Your task to perform on an android device: turn off improve location accuracy Image 0: 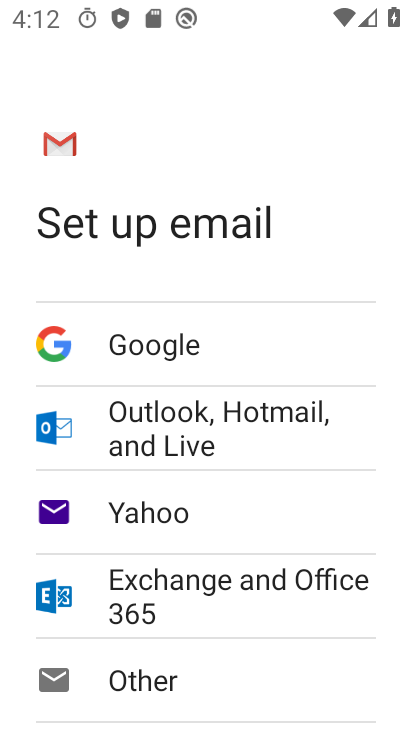
Step 0: press home button
Your task to perform on an android device: turn off improve location accuracy Image 1: 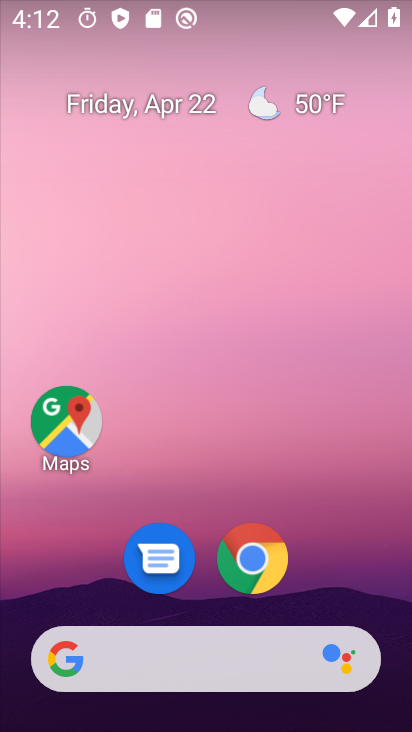
Step 1: drag from (299, 542) to (205, 214)
Your task to perform on an android device: turn off improve location accuracy Image 2: 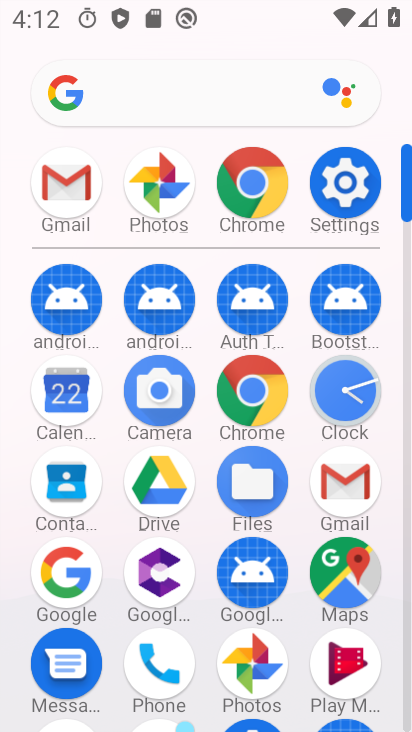
Step 2: click (347, 194)
Your task to perform on an android device: turn off improve location accuracy Image 3: 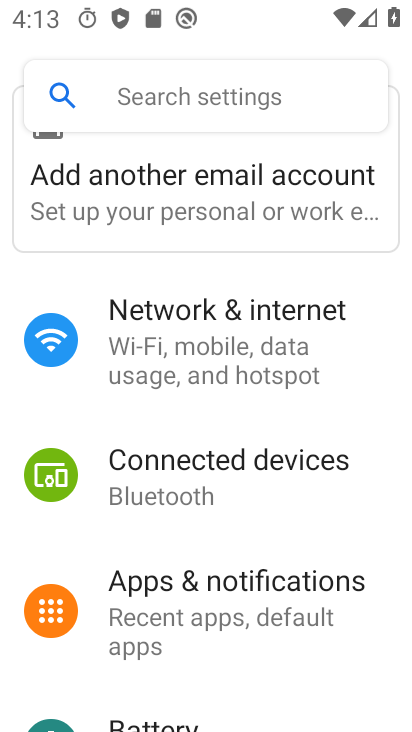
Step 3: drag from (297, 642) to (265, 241)
Your task to perform on an android device: turn off improve location accuracy Image 4: 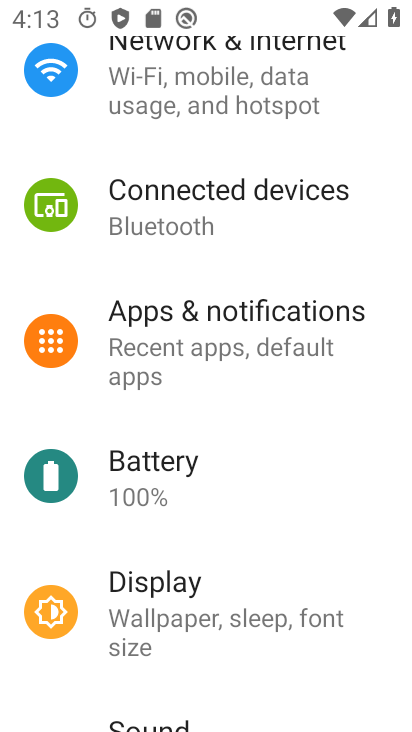
Step 4: drag from (268, 623) to (253, 413)
Your task to perform on an android device: turn off improve location accuracy Image 5: 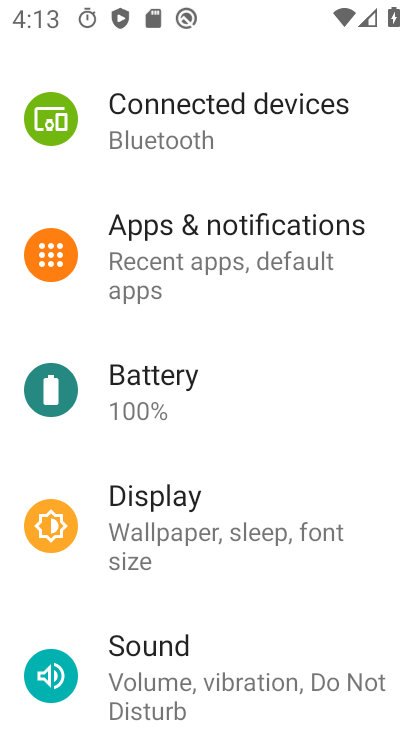
Step 5: drag from (250, 385) to (256, 617)
Your task to perform on an android device: turn off improve location accuracy Image 6: 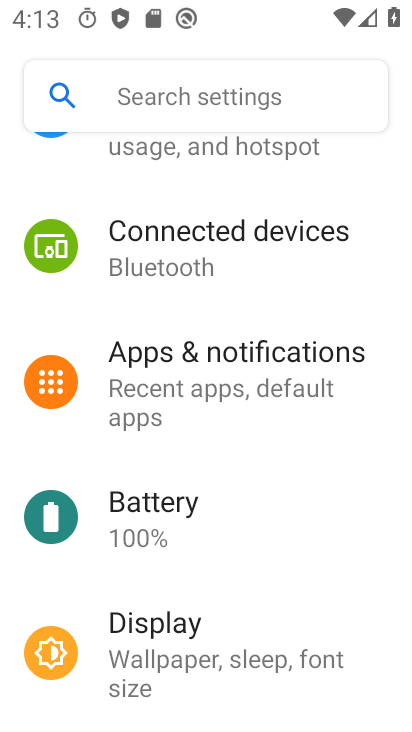
Step 6: drag from (258, 644) to (244, 350)
Your task to perform on an android device: turn off improve location accuracy Image 7: 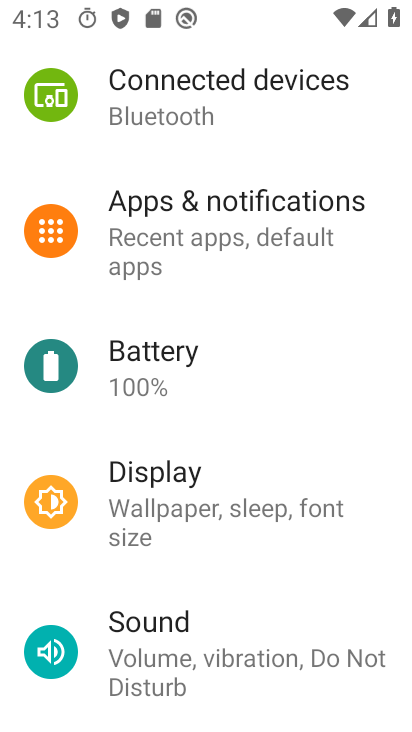
Step 7: drag from (250, 600) to (280, 279)
Your task to perform on an android device: turn off improve location accuracy Image 8: 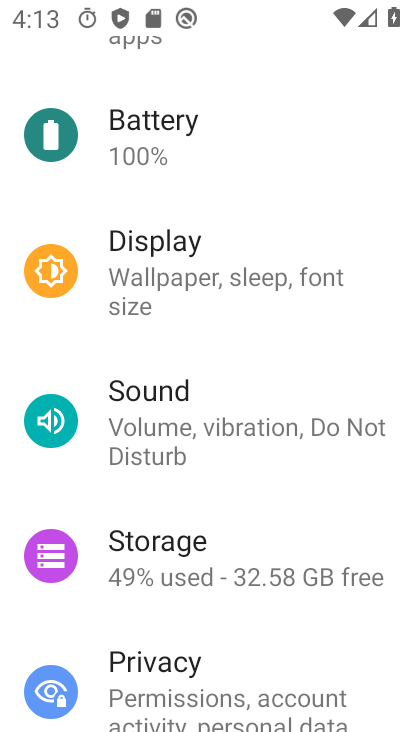
Step 8: drag from (228, 628) to (286, 330)
Your task to perform on an android device: turn off improve location accuracy Image 9: 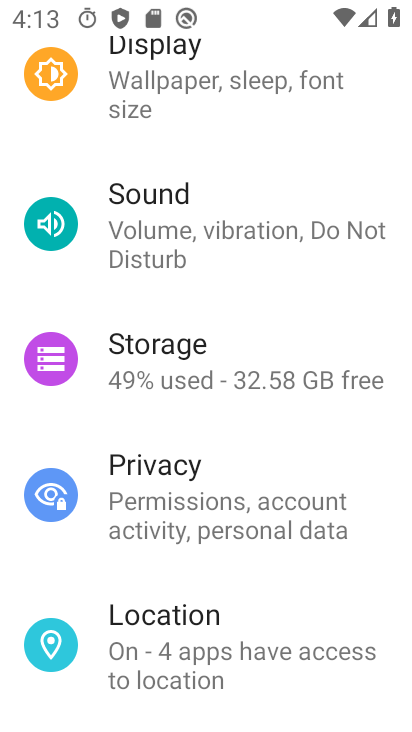
Step 9: click (185, 639)
Your task to perform on an android device: turn off improve location accuracy Image 10: 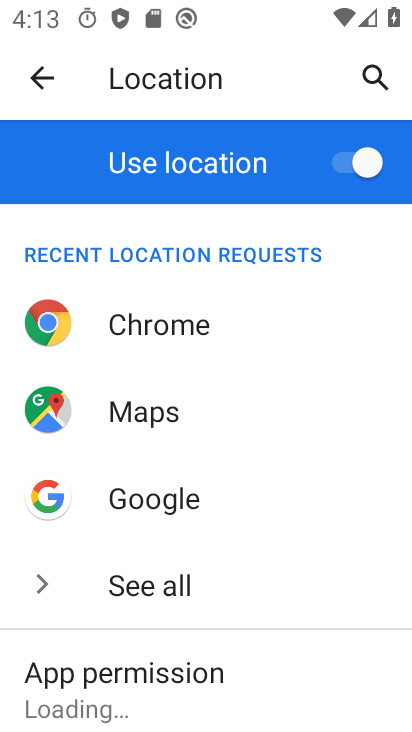
Step 10: drag from (252, 601) to (215, 352)
Your task to perform on an android device: turn off improve location accuracy Image 11: 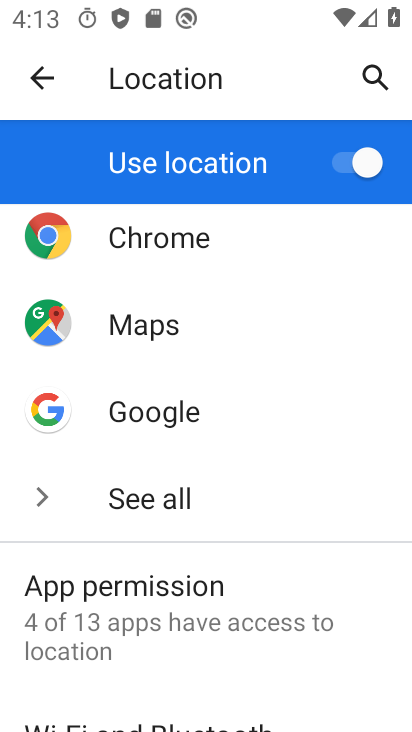
Step 11: drag from (222, 651) to (239, 317)
Your task to perform on an android device: turn off improve location accuracy Image 12: 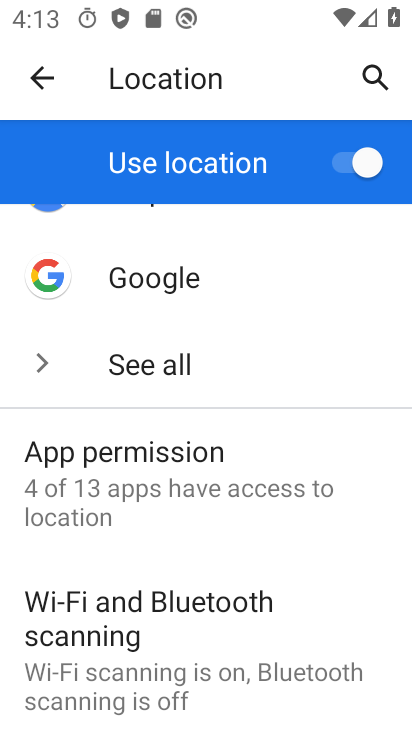
Step 12: drag from (252, 586) to (263, 322)
Your task to perform on an android device: turn off improve location accuracy Image 13: 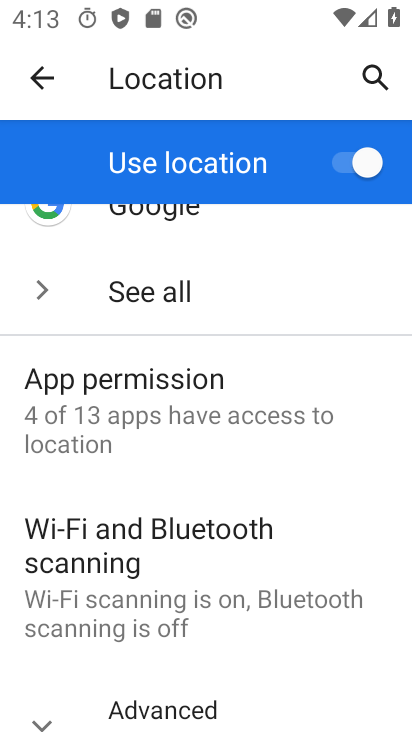
Step 13: drag from (186, 706) to (269, 388)
Your task to perform on an android device: turn off improve location accuracy Image 14: 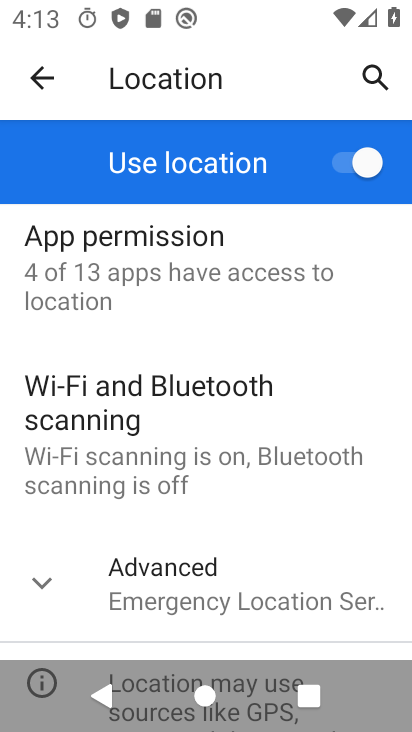
Step 14: drag from (205, 549) to (202, 290)
Your task to perform on an android device: turn off improve location accuracy Image 15: 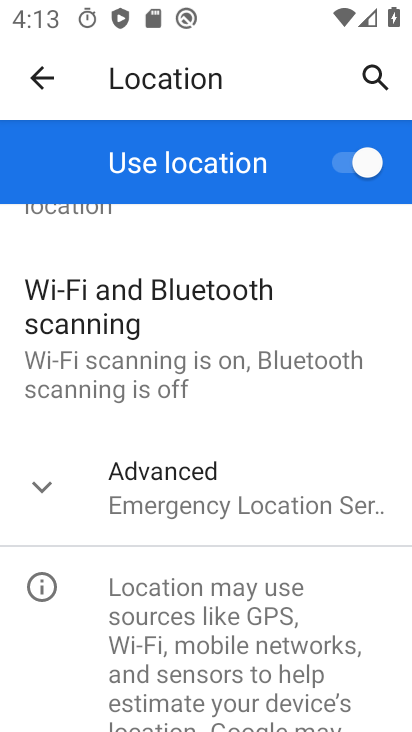
Step 15: click (335, 170)
Your task to perform on an android device: turn off improve location accuracy Image 16: 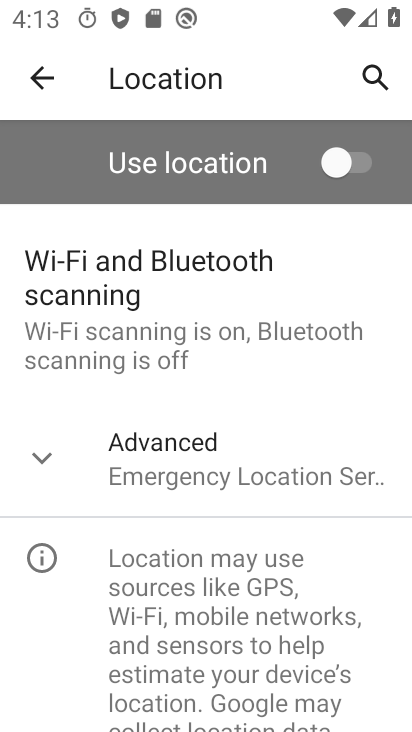
Step 16: task complete